Your task to perform on an android device: see sites visited before in the chrome app Image 0: 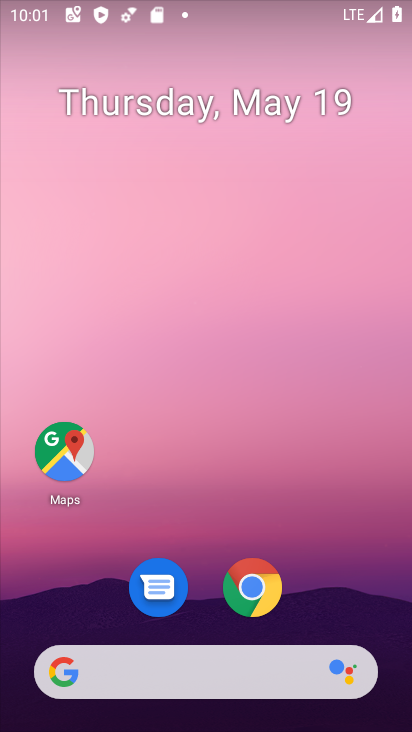
Step 0: click (268, 597)
Your task to perform on an android device: see sites visited before in the chrome app Image 1: 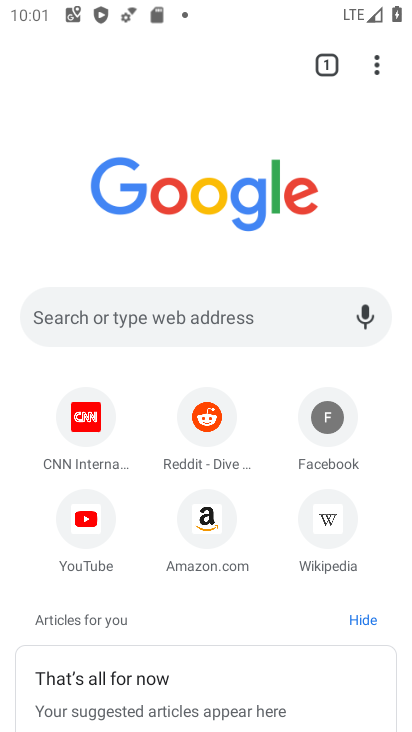
Step 1: click (365, 64)
Your task to perform on an android device: see sites visited before in the chrome app Image 2: 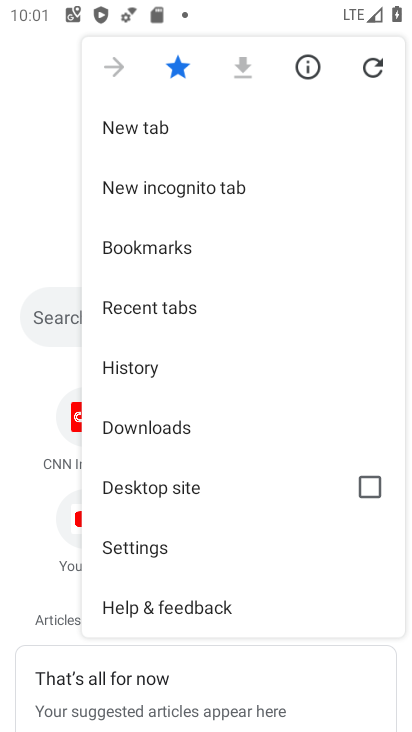
Step 2: click (158, 367)
Your task to perform on an android device: see sites visited before in the chrome app Image 3: 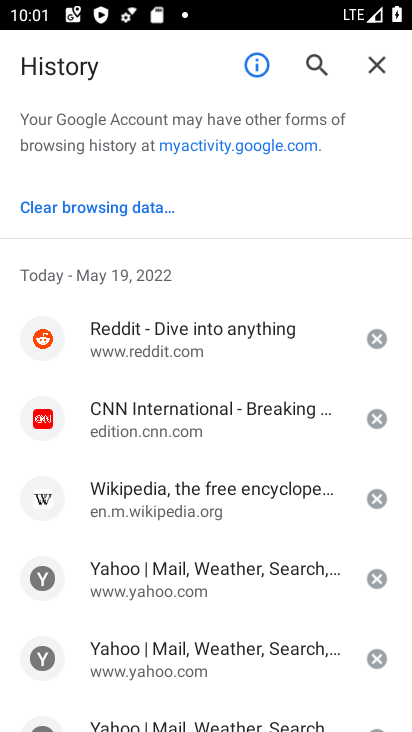
Step 3: task complete